Your task to perform on an android device: turn off sleep mode Image 0: 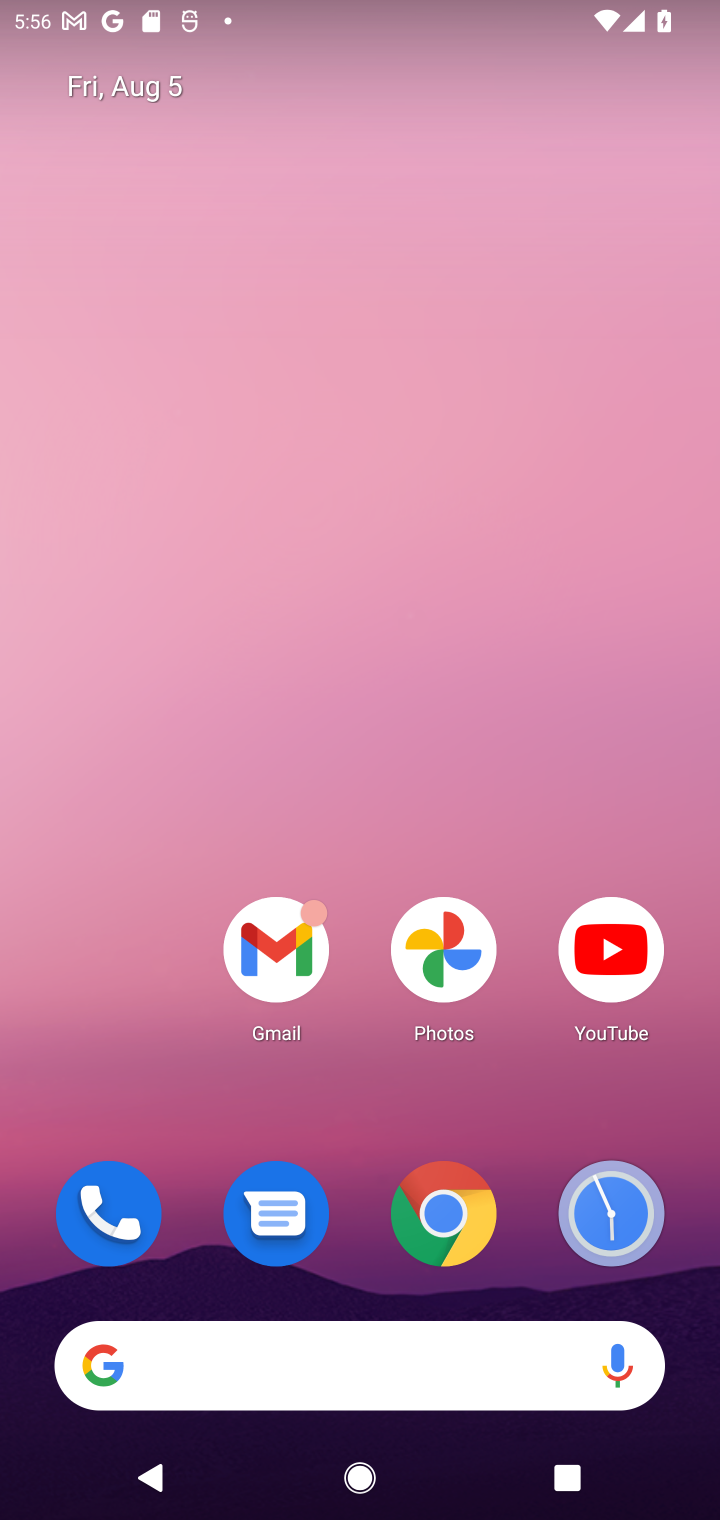
Step 0: drag from (342, 1289) to (394, 15)
Your task to perform on an android device: turn off sleep mode Image 1: 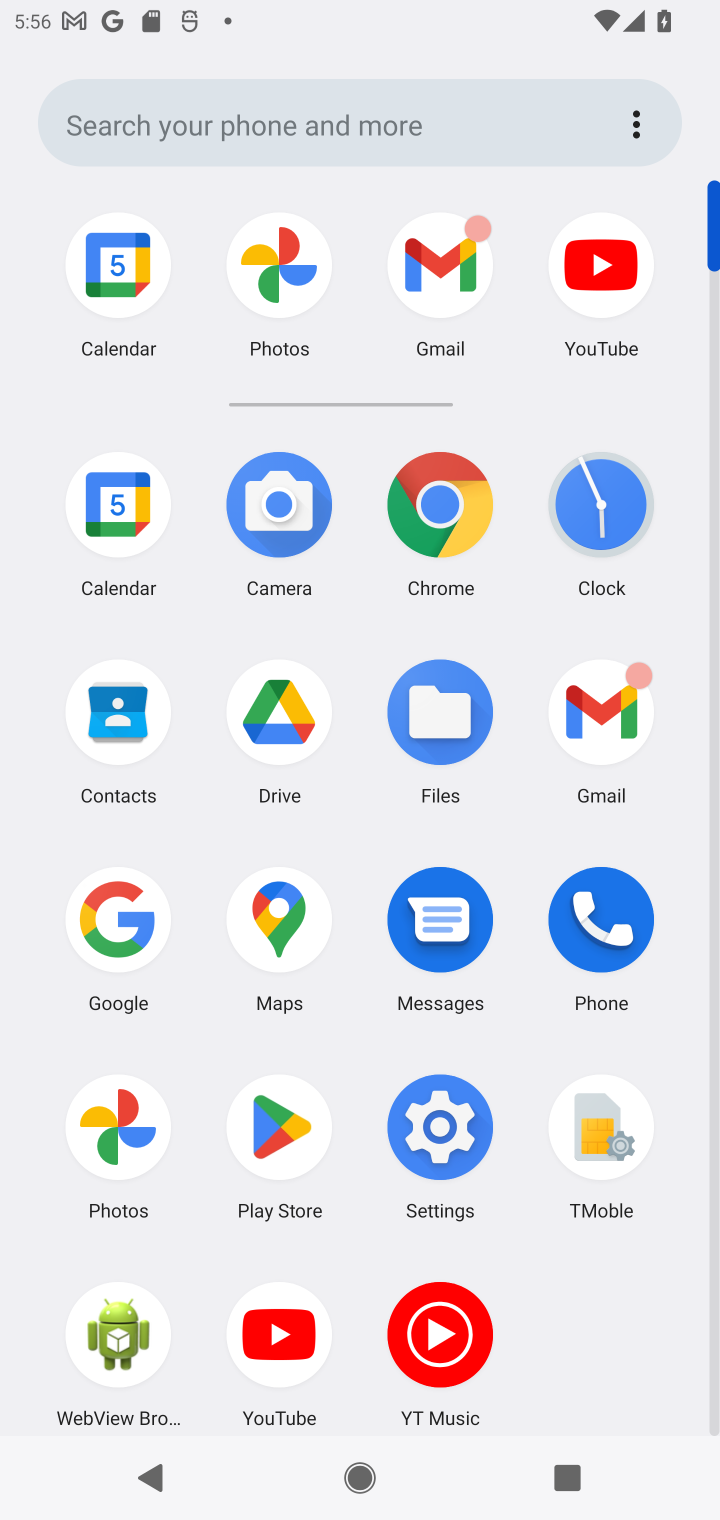
Step 1: click (440, 1181)
Your task to perform on an android device: turn off sleep mode Image 2: 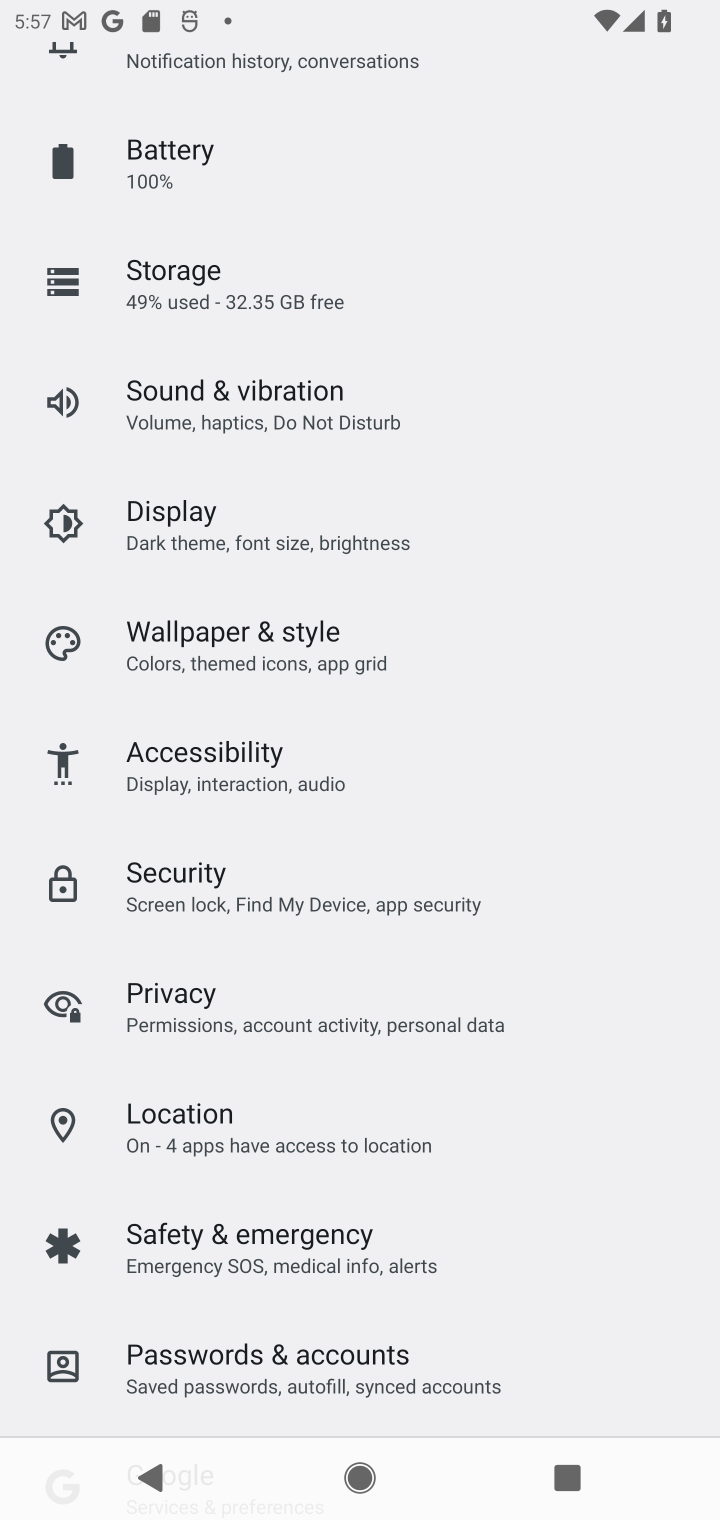
Step 2: task complete